Your task to perform on an android device: see tabs open on other devices in the chrome app Image 0: 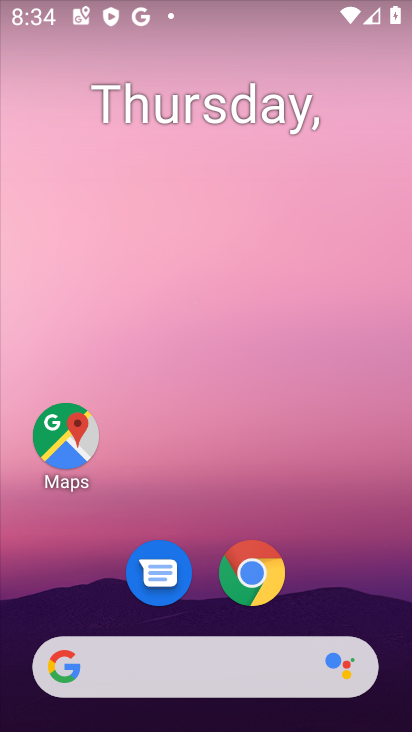
Step 0: drag from (342, 576) to (325, 253)
Your task to perform on an android device: see tabs open on other devices in the chrome app Image 1: 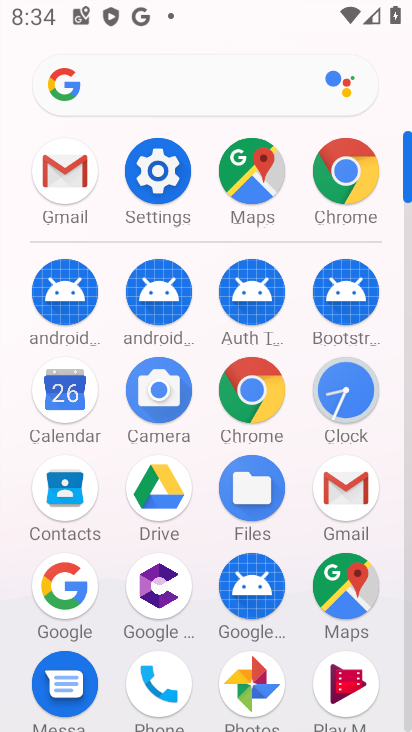
Step 1: click (245, 389)
Your task to perform on an android device: see tabs open on other devices in the chrome app Image 2: 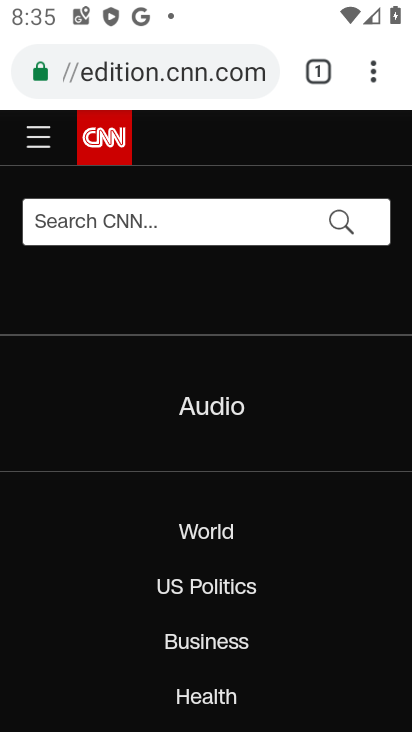
Step 2: click (324, 88)
Your task to perform on an android device: see tabs open on other devices in the chrome app Image 3: 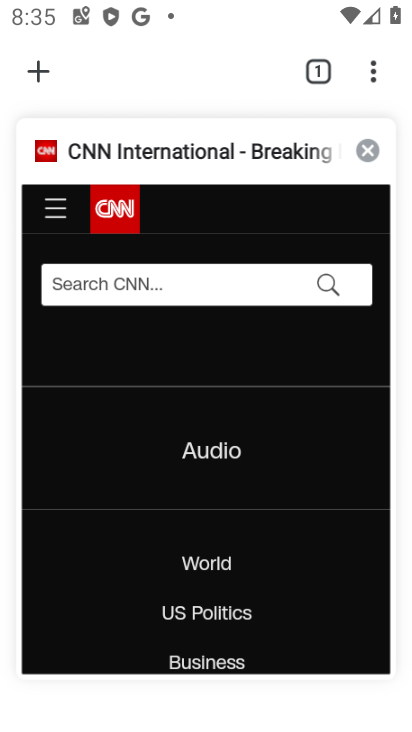
Step 3: click (58, 73)
Your task to perform on an android device: see tabs open on other devices in the chrome app Image 4: 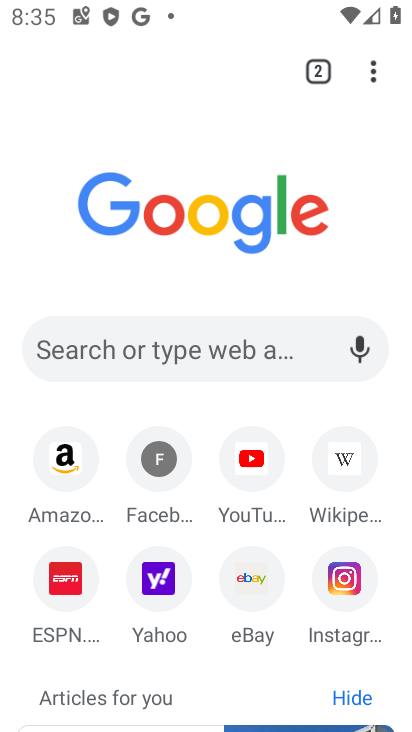
Step 4: click (309, 74)
Your task to perform on an android device: see tabs open on other devices in the chrome app Image 5: 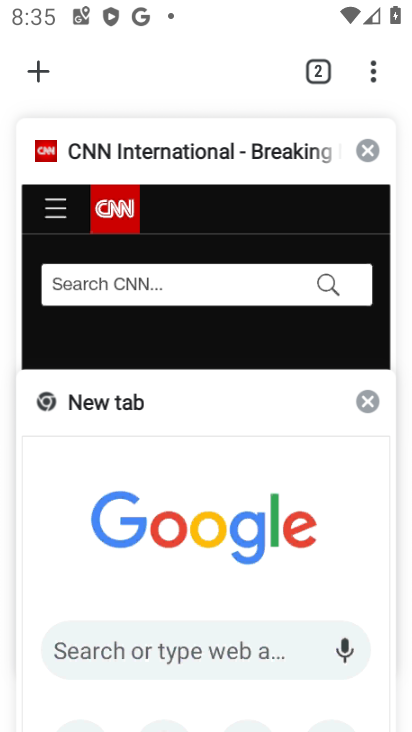
Step 5: task complete